Your task to perform on an android device: turn off smart reply in the gmail app Image 0: 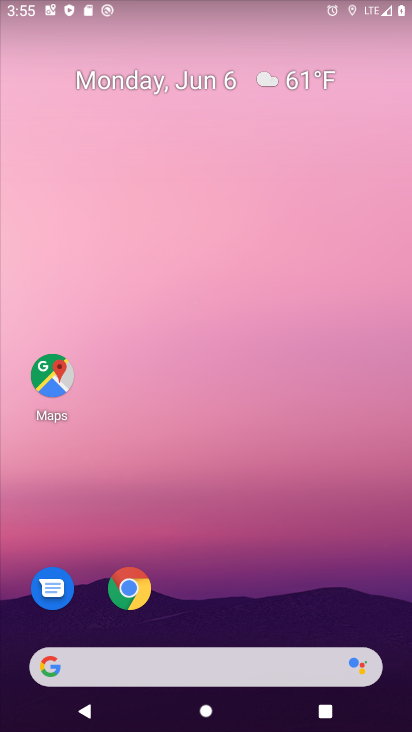
Step 0: drag from (227, 625) to (152, 213)
Your task to perform on an android device: turn off smart reply in the gmail app Image 1: 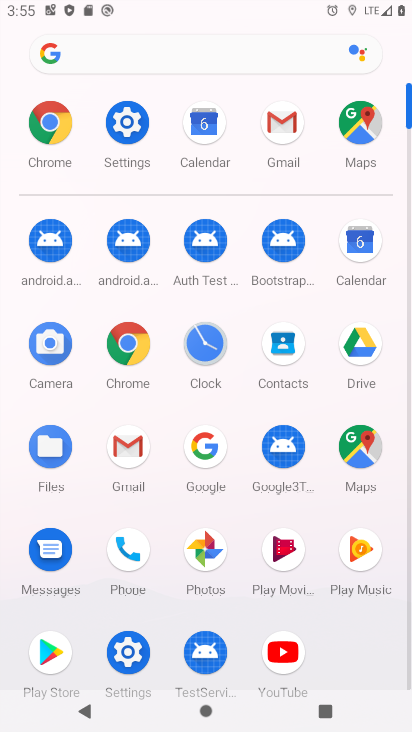
Step 1: click (289, 123)
Your task to perform on an android device: turn off smart reply in the gmail app Image 2: 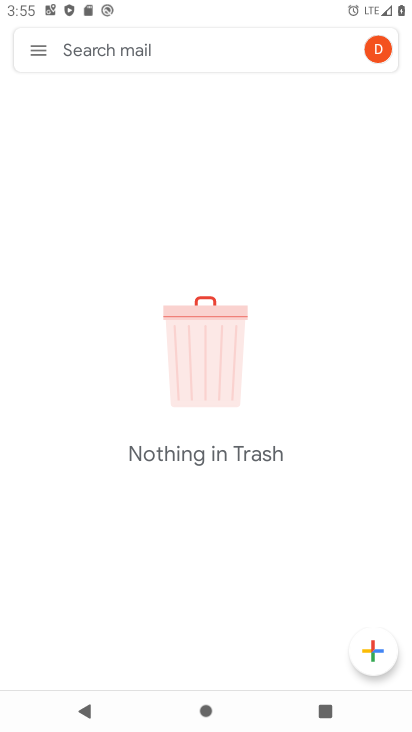
Step 2: click (38, 54)
Your task to perform on an android device: turn off smart reply in the gmail app Image 3: 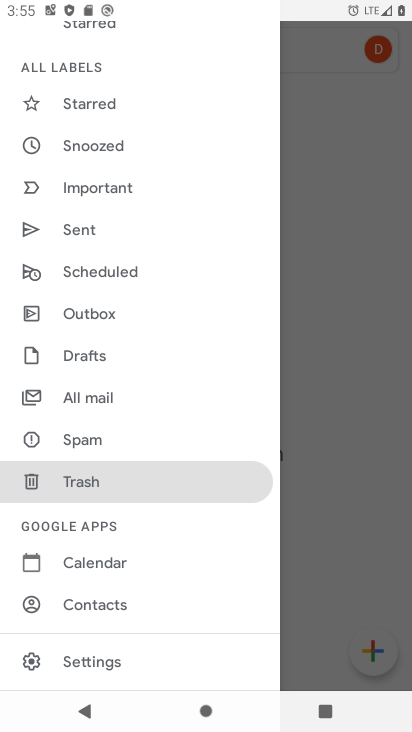
Step 3: drag from (139, 506) to (144, 235)
Your task to perform on an android device: turn off smart reply in the gmail app Image 4: 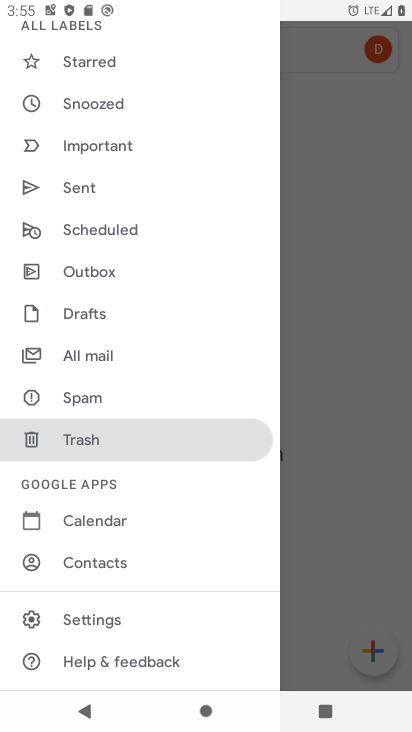
Step 4: click (115, 624)
Your task to perform on an android device: turn off smart reply in the gmail app Image 5: 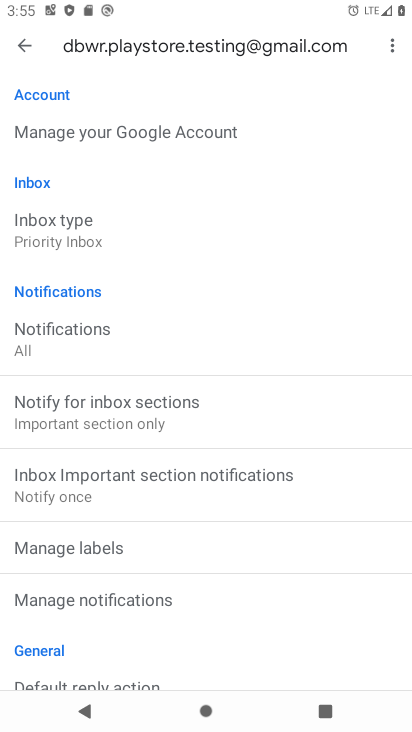
Step 5: drag from (226, 503) to (175, 176)
Your task to perform on an android device: turn off smart reply in the gmail app Image 6: 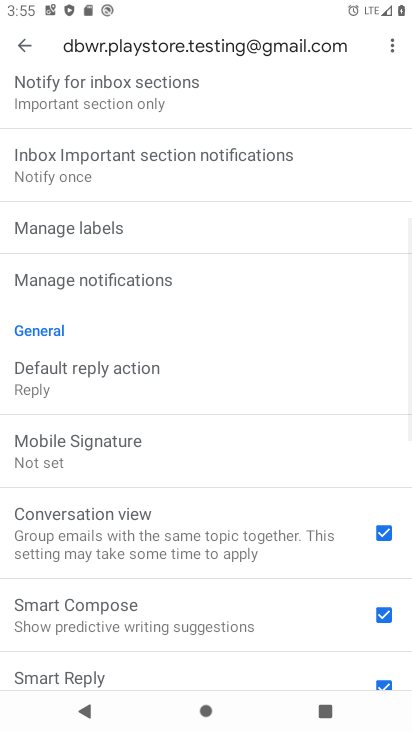
Step 6: drag from (174, 391) to (173, 134)
Your task to perform on an android device: turn off smart reply in the gmail app Image 7: 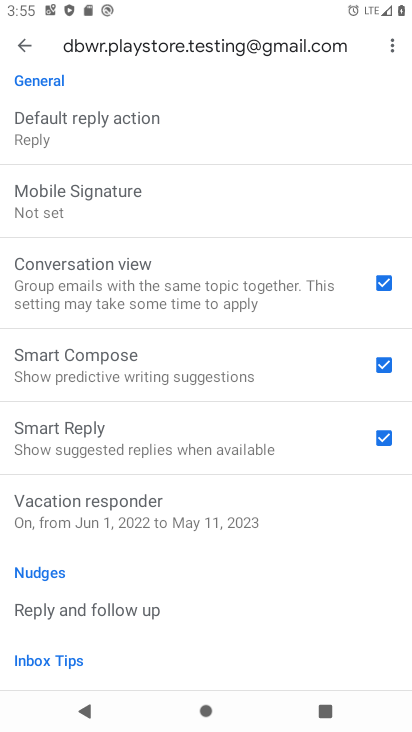
Step 7: click (380, 520)
Your task to perform on an android device: turn off smart reply in the gmail app Image 8: 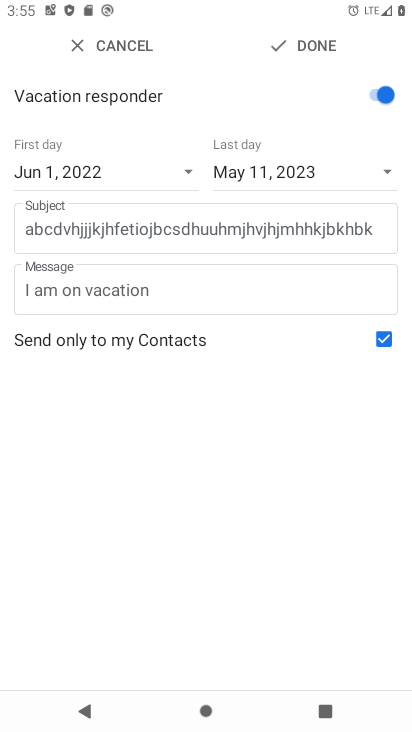
Step 8: press back button
Your task to perform on an android device: turn off smart reply in the gmail app Image 9: 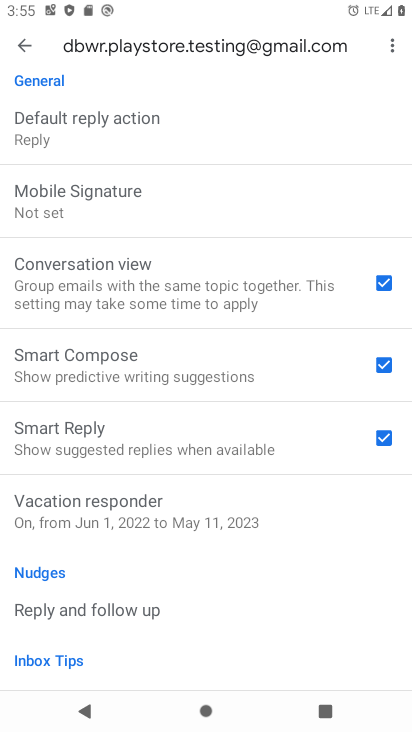
Step 9: click (382, 437)
Your task to perform on an android device: turn off smart reply in the gmail app Image 10: 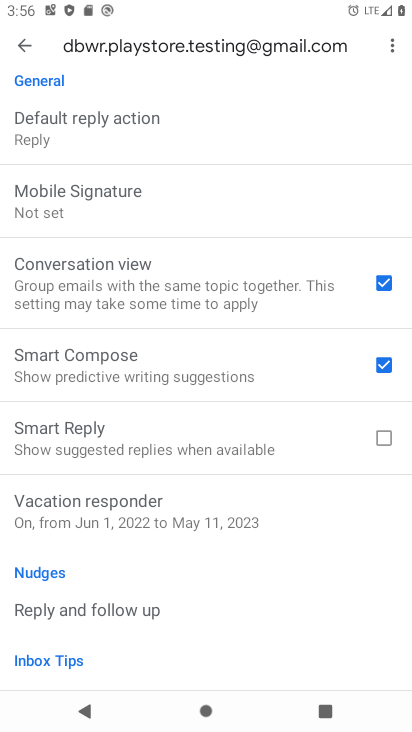
Step 10: task complete